Your task to perform on an android device: Open Youtube and go to "Your channel" Image 0: 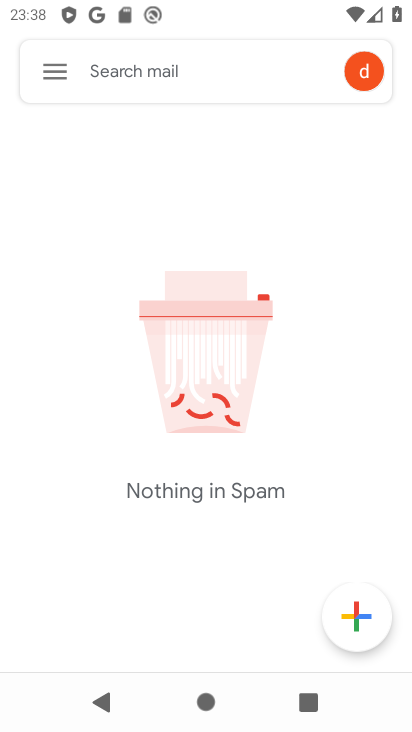
Step 0: press back button
Your task to perform on an android device: Open Youtube and go to "Your channel" Image 1: 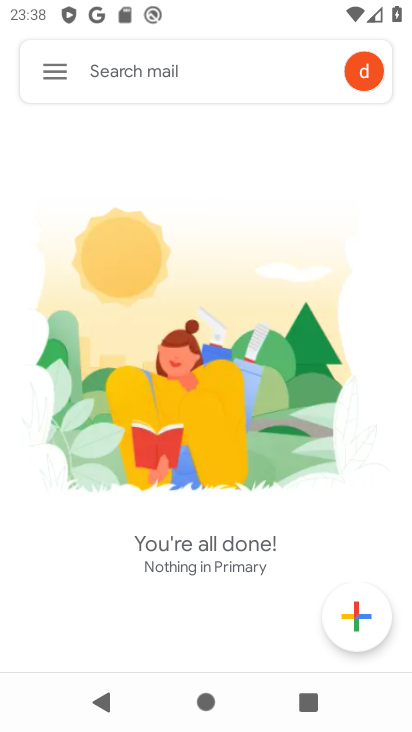
Step 1: press back button
Your task to perform on an android device: Open Youtube and go to "Your channel" Image 2: 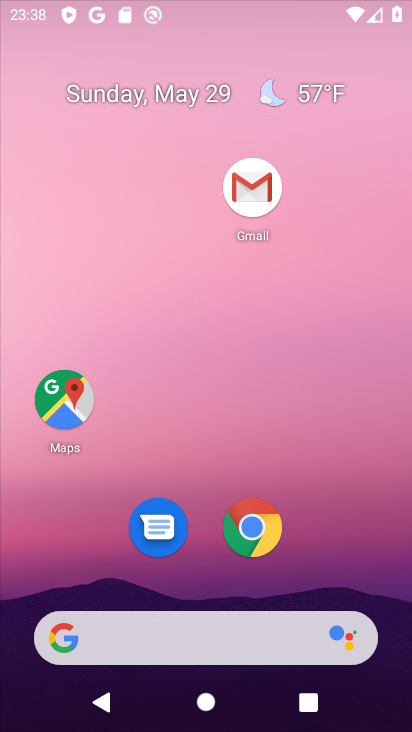
Step 2: press back button
Your task to perform on an android device: Open Youtube and go to "Your channel" Image 3: 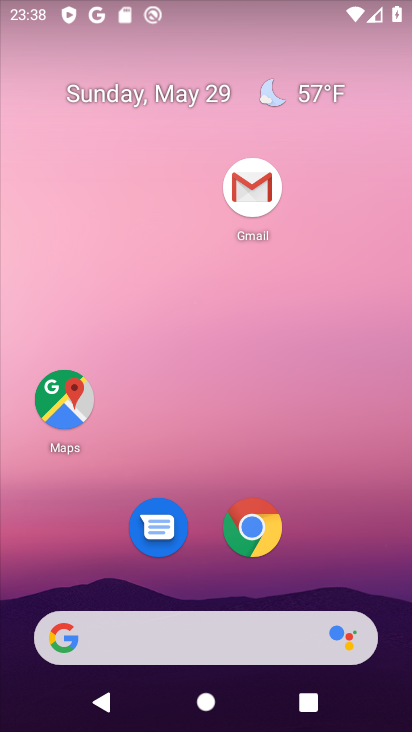
Step 3: drag from (327, 556) to (282, 6)
Your task to perform on an android device: Open Youtube and go to "Your channel" Image 4: 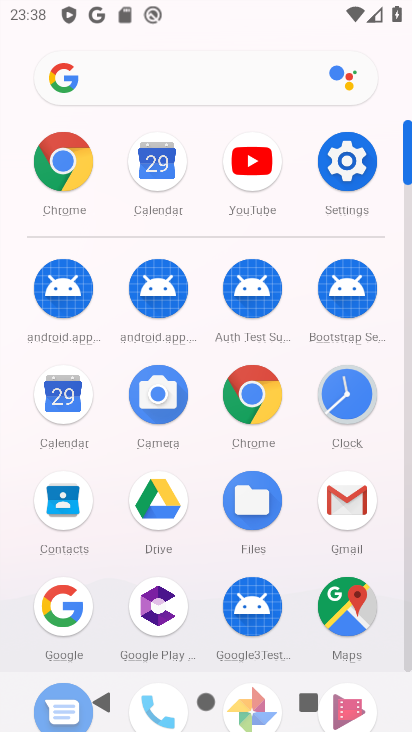
Step 4: drag from (295, 533) to (279, 247)
Your task to perform on an android device: Open Youtube and go to "Your channel" Image 5: 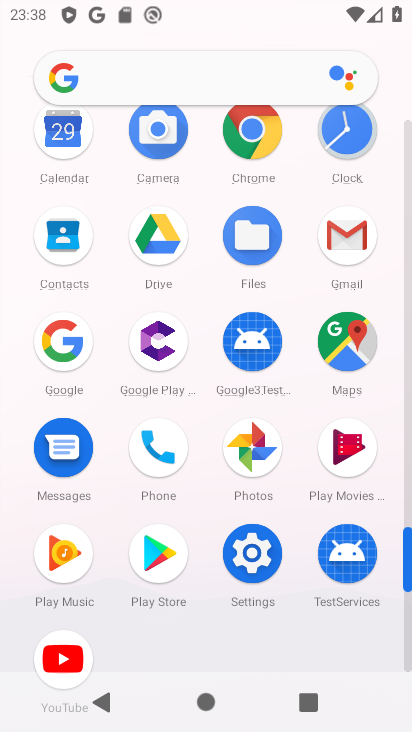
Step 5: click (65, 659)
Your task to perform on an android device: Open Youtube and go to "Your channel" Image 6: 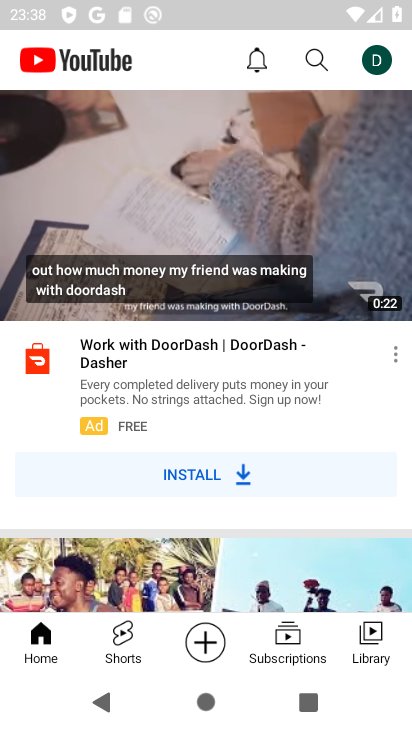
Step 6: click (381, 63)
Your task to perform on an android device: Open Youtube and go to "Your channel" Image 7: 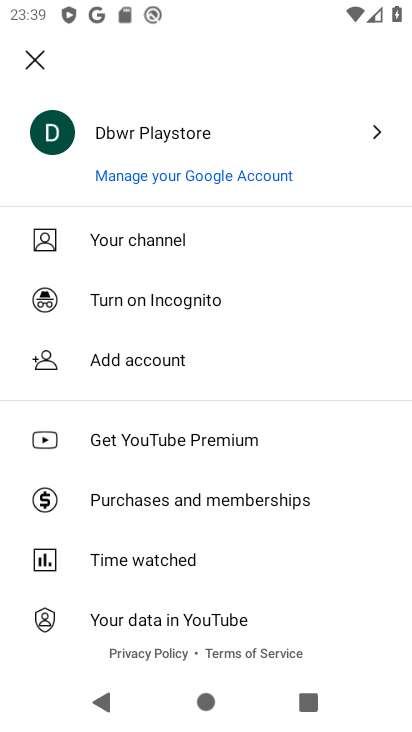
Step 7: click (162, 242)
Your task to perform on an android device: Open Youtube and go to "Your channel" Image 8: 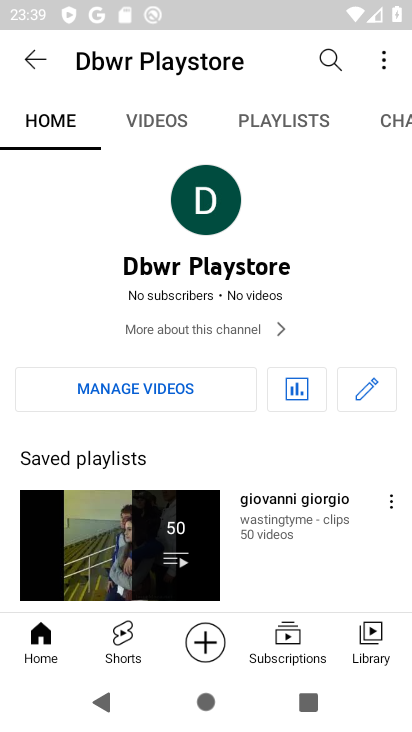
Step 8: task complete